Your task to perform on an android device: turn off picture-in-picture Image 0: 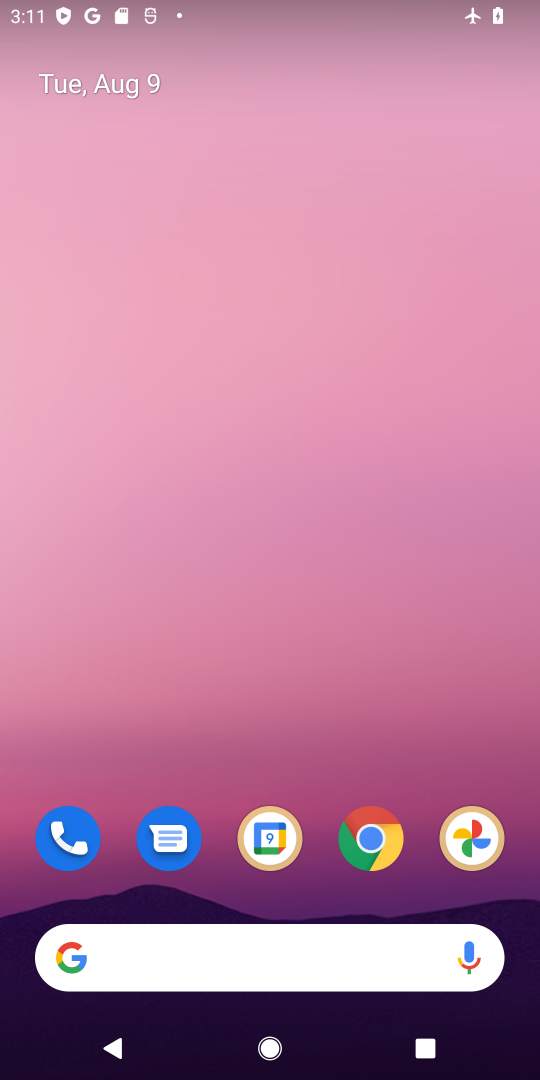
Step 0: drag from (306, 900) to (351, 159)
Your task to perform on an android device: turn off picture-in-picture Image 1: 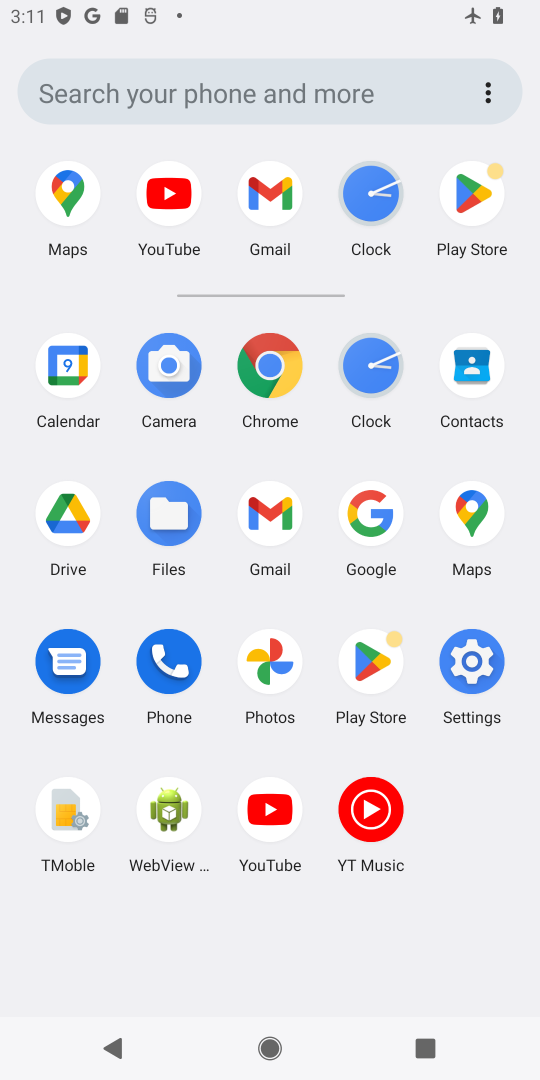
Step 1: click (262, 360)
Your task to perform on an android device: turn off picture-in-picture Image 2: 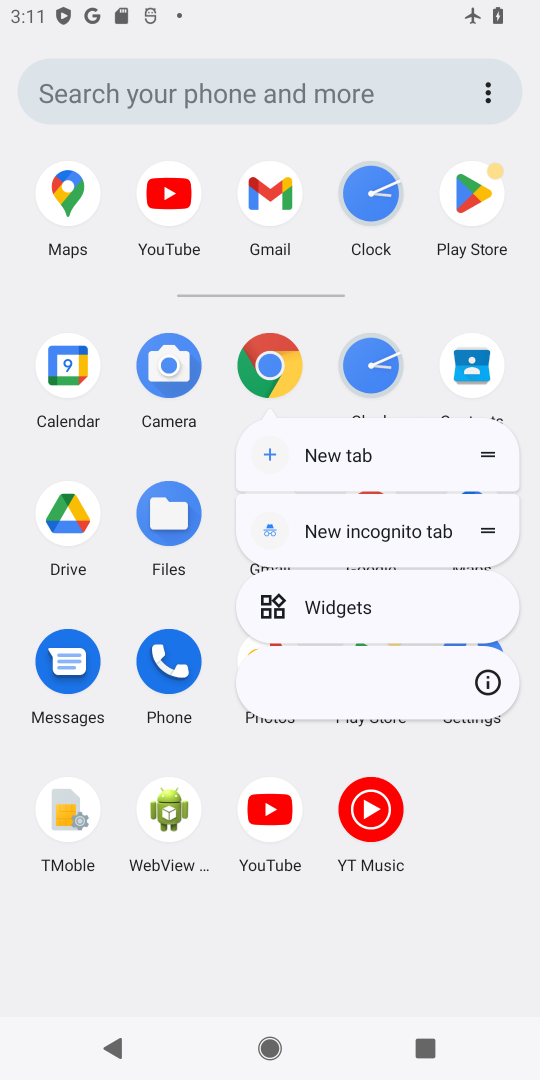
Step 2: click (483, 664)
Your task to perform on an android device: turn off picture-in-picture Image 3: 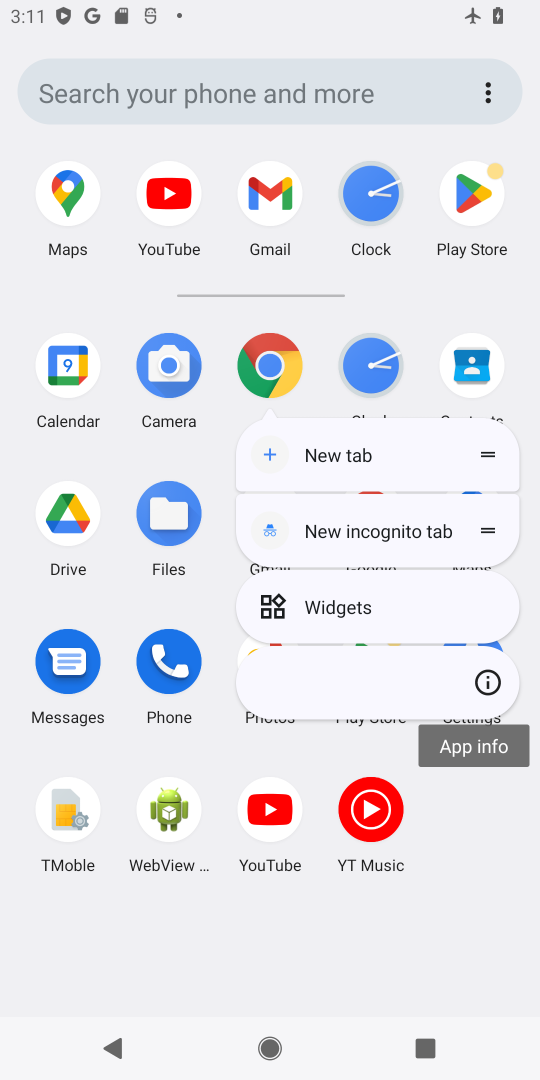
Step 3: click (480, 672)
Your task to perform on an android device: turn off picture-in-picture Image 4: 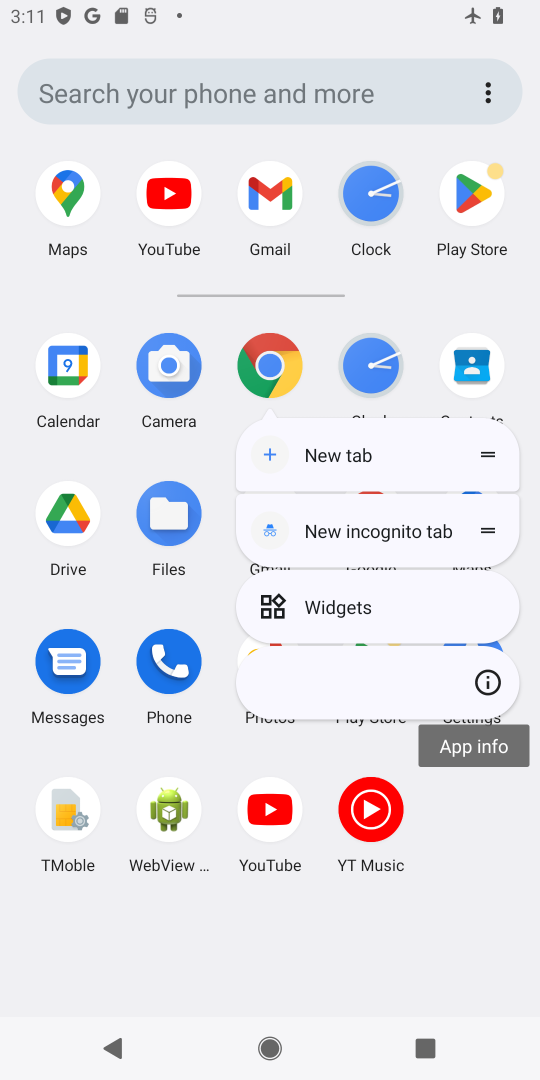
Step 4: click (480, 672)
Your task to perform on an android device: turn off picture-in-picture Image 5: 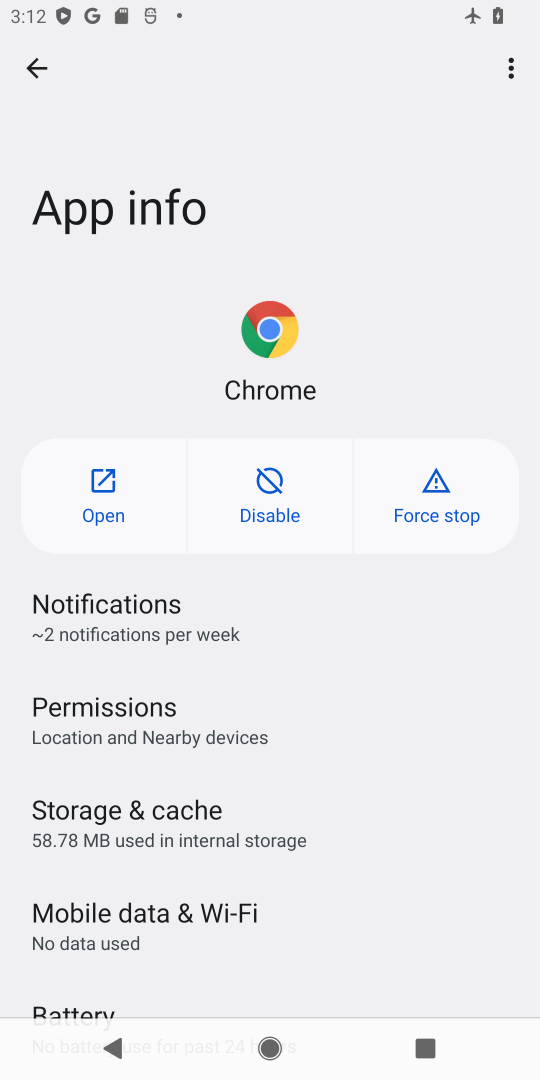
Step 5: drag from (354, 929) to (380, 119)
Your task to perform on an android device: turn off picture-in-picture Image 6: 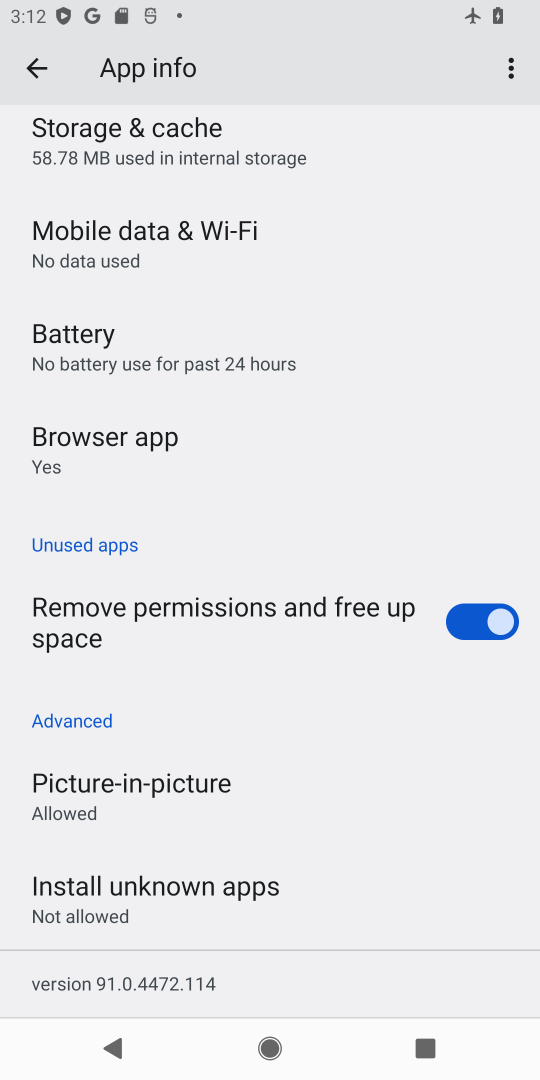
Step 6: click (140, 803)
Your task to perform on an android device: turn off picture-in-picture Image 7: 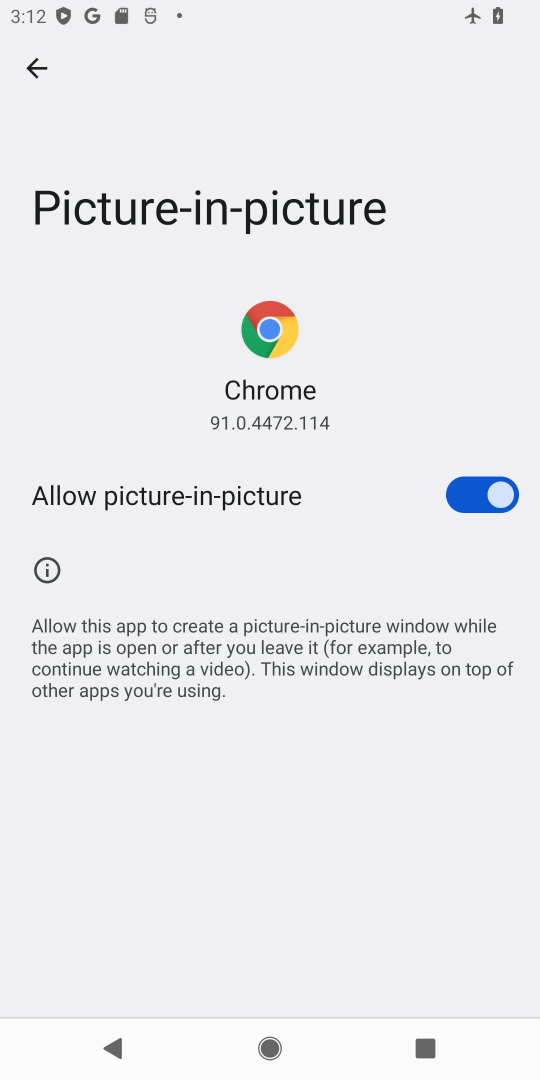
Step 7: click (496, 503)
Your task to perform on an android device: turn off picture-in-picture Image 8: 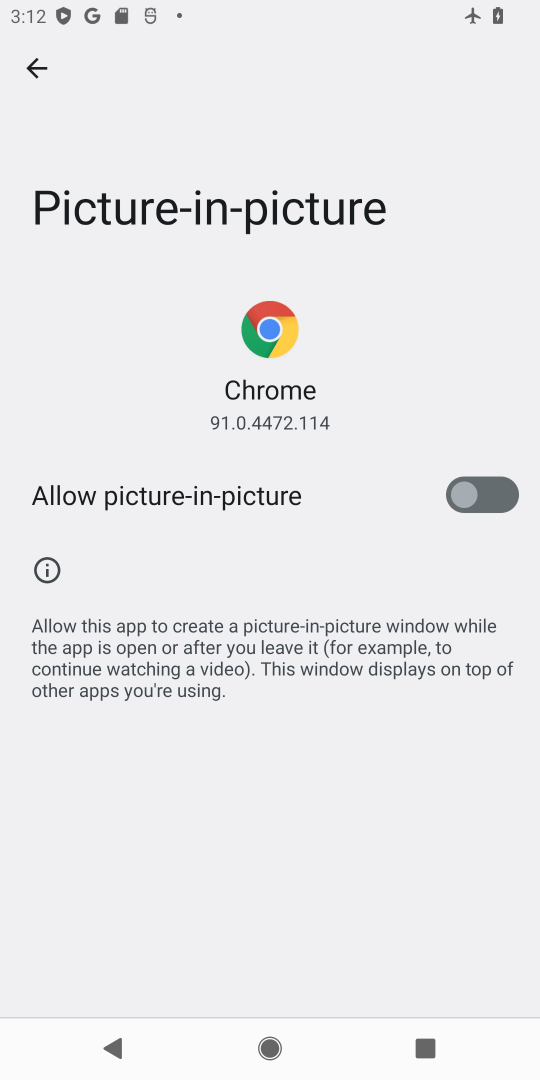
Step 8: task complete